Your task to perform on an android device: turn off javascript in the chrome app Image 0: 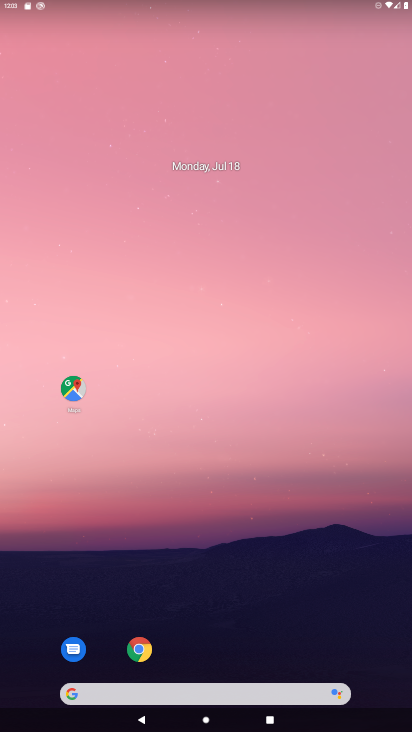
Step 0: click (135, 657)
Your task to perform on an android device: turn off javascript in the chrome app Image 1: 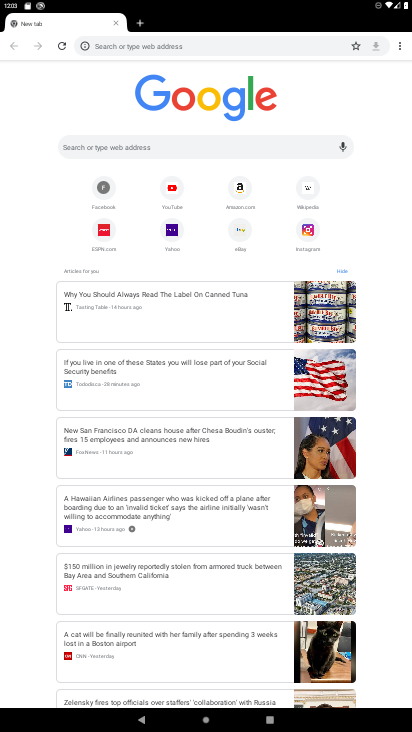
Step 1: click (405, 39)
Your task to perform on an android device: turn off javascript in the chrome app Image 2: 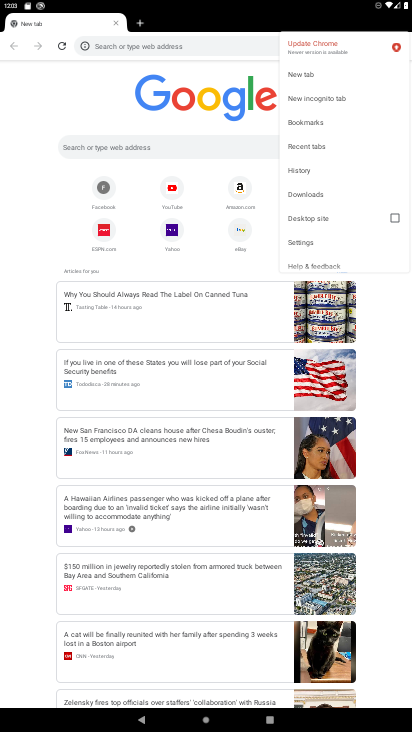
Step 2: click (307, 241)
Your task to perform on an android device: turn off javascript in the chrome app Image 3: 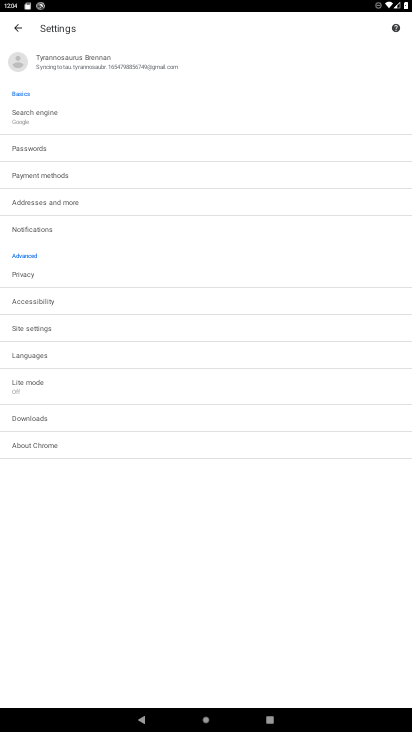
Step 3: click (157, 405)
Your task to perform on an android device: turn off javascript in the chrome app Image 4: 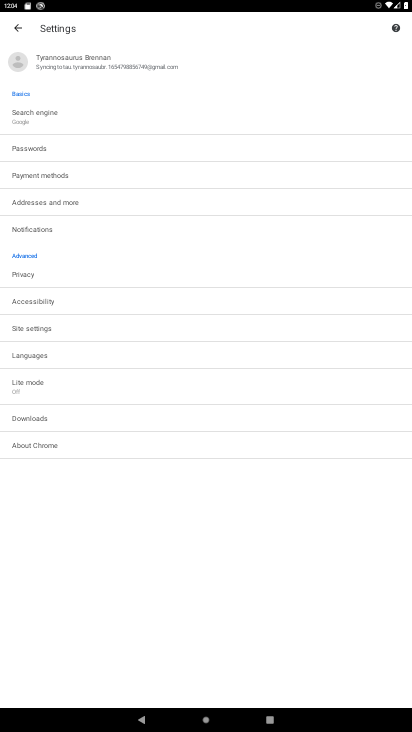
Step 4: click (76, 336)
Your task to perform on an android device: turn off javascript in the chrome app Image 5: 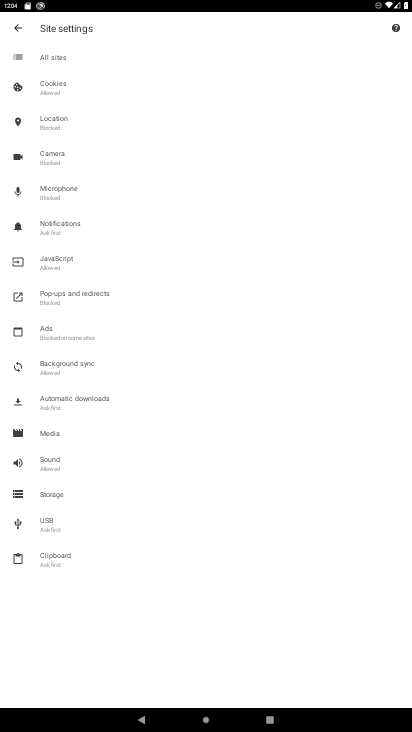
Step 5: click (78, 268)
Your task to perform on an android device: turn off javascript in the chrome app Image 6: 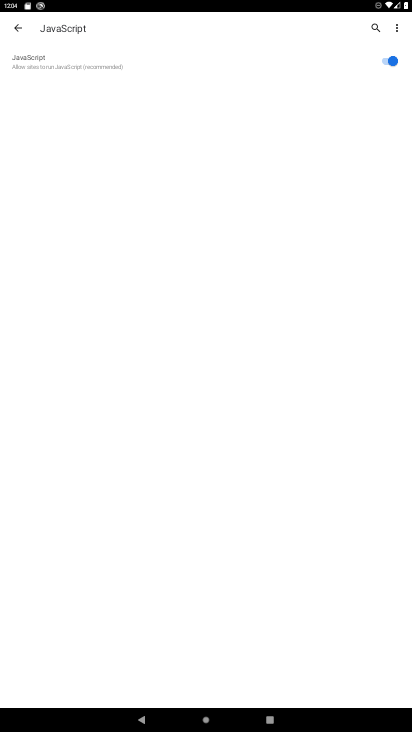
Step 6: click (385, 64)
Your task to perform on an android device: turn off javascript in the chrome app Image 7: 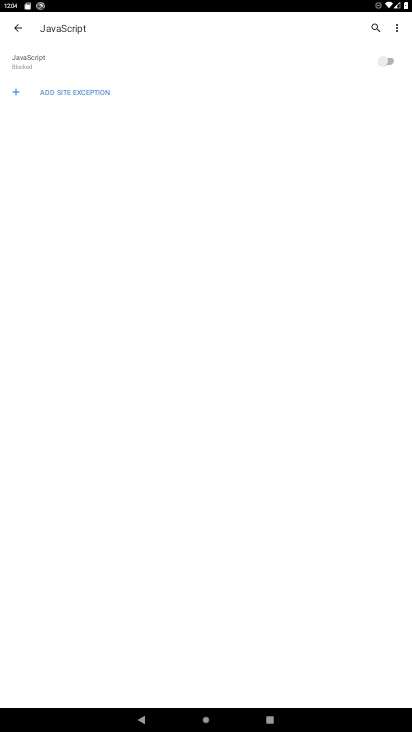
Step 7: task complete